Your task to perform on an android device: change notifications settings Image 0: 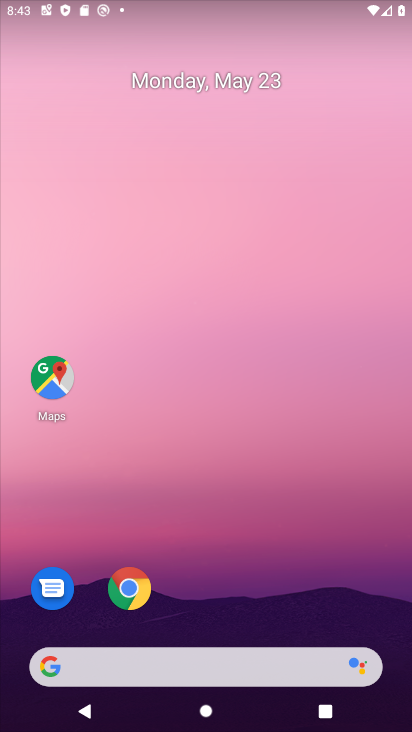
Step 0: press home button
Your task to perform on an android device: change notifications settings Image 1: 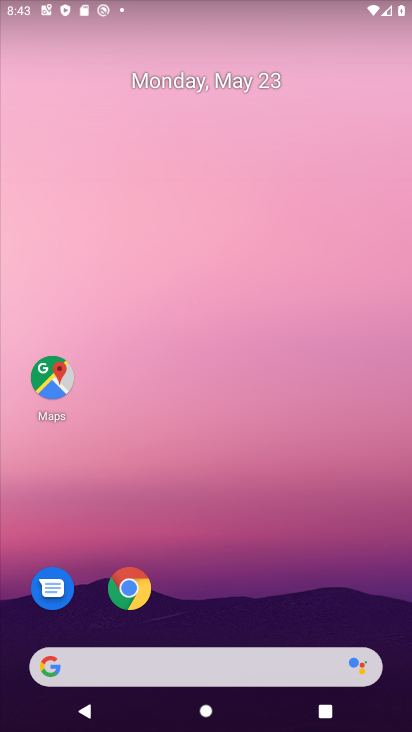
Step 1: drag from (397, 658) to (389, 301)
Your task to perform on an android device: change notifications settings Image 2: 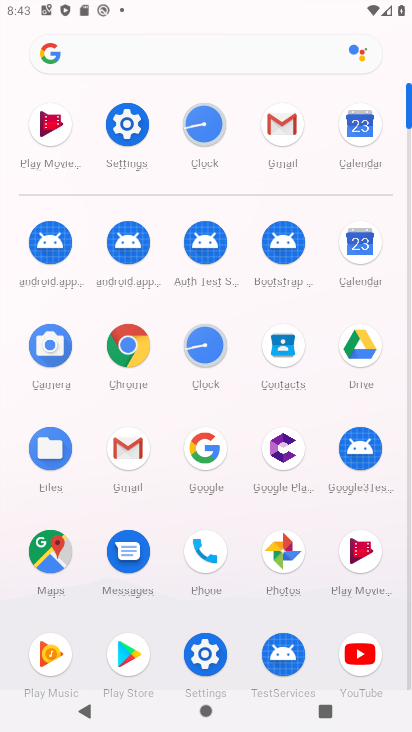
Step 2: click (117, 132)
Your task to perform on an android device: change notifications settings Image 3: 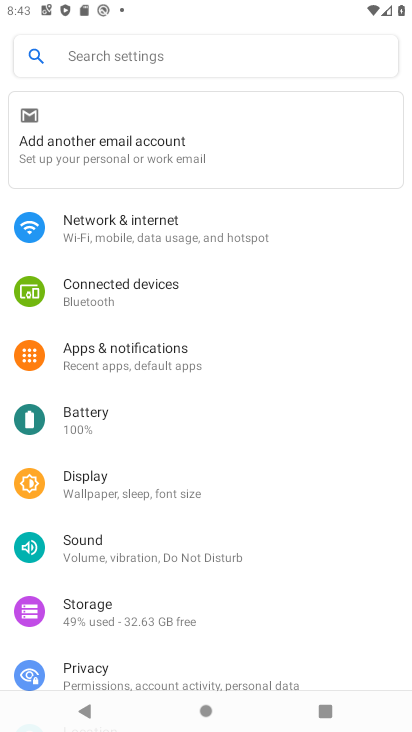
Step 3: click (118, 356)
Your task to perform on an android device: change notifications settings Image 4: 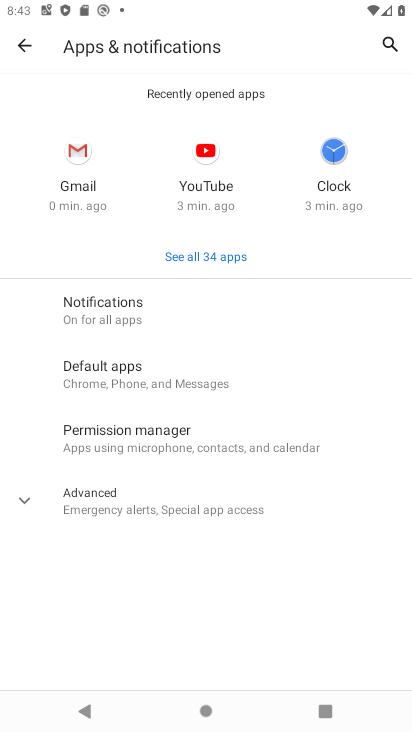
Step 4: click (99, 300)
Your task to perform on an android device: change notifications settings Image 5: 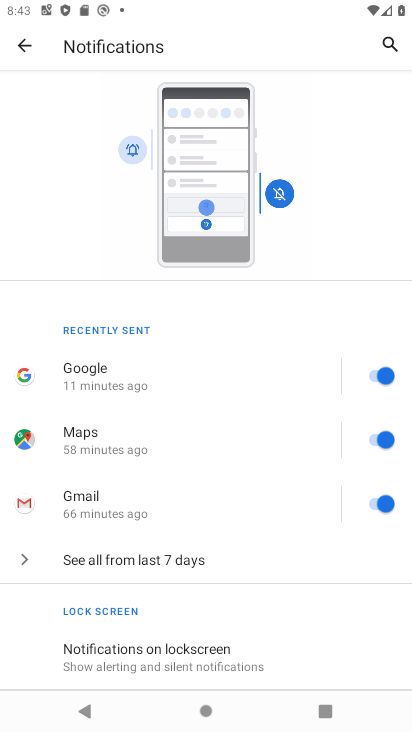
Step 5: drag from (313, 637) to (302, 334)
Your task to perform on an android device: change notifications settings Image 6: 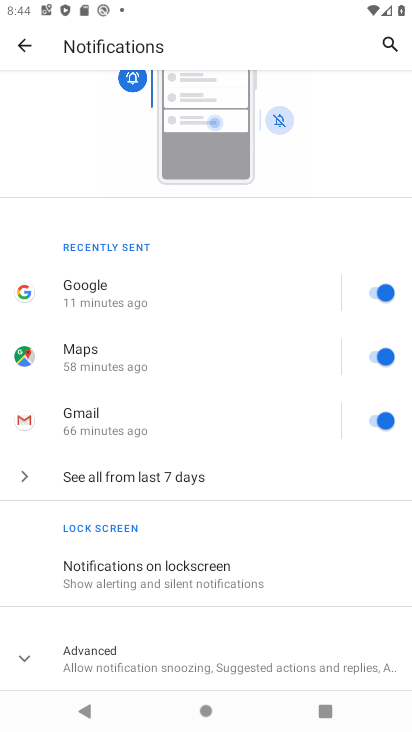
Step 6: click (17, 657)
Your task to perform on an android device: change notifications settings Image 7: 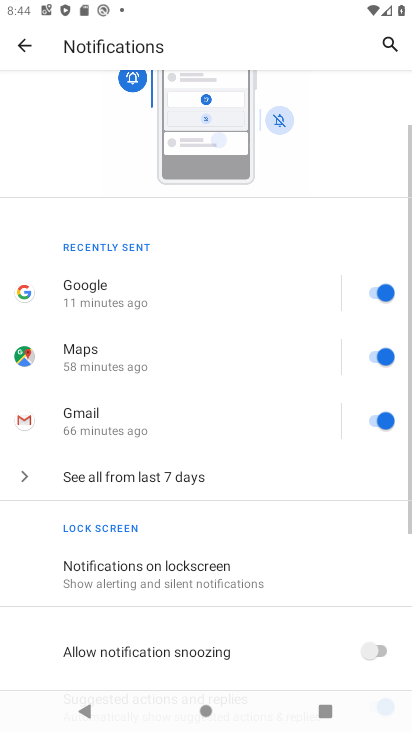
Step 7: task complete